Your task to perform on an android device: turn smart compose on in the gmail app Image 0: 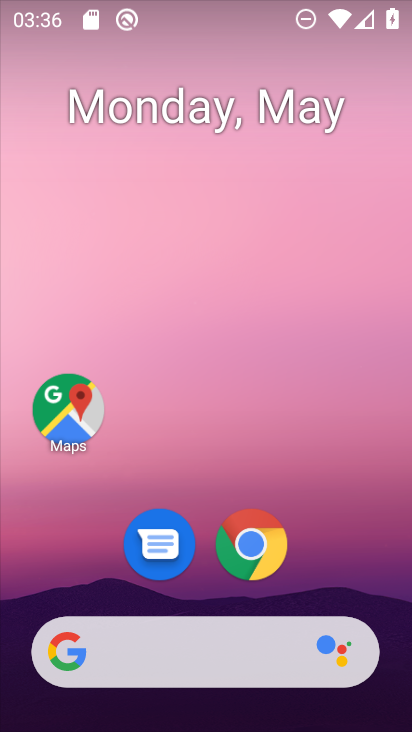
Step 0: drag from (380, 583) to (383, 259)
Your task to perform on an android device: turn smart compose on in the gmail app Image 1: 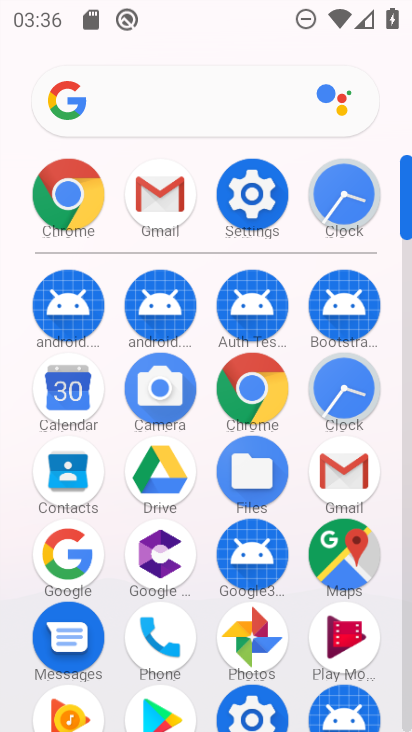
Step 1: click (365, 472)
Your task to perform on an android device: turn smart compose on in the gmail app Image 2: 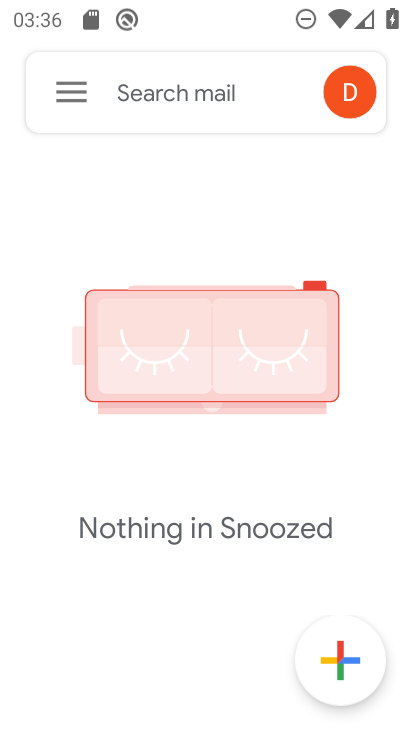
Step 2: click (81, 107)
Your task to perform on an android device: turn smart compose on in the gmail app Image 3: 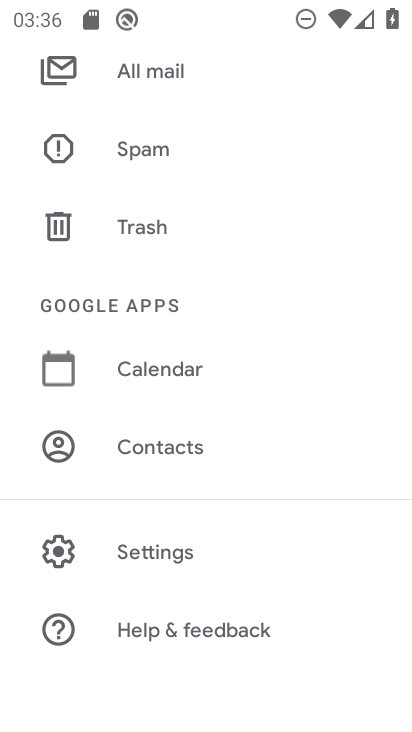
Step 3: drag from (279, 162) to (280, 247)
Your task to perform on an android device: turn smart compose on in the gmail app Image 4: 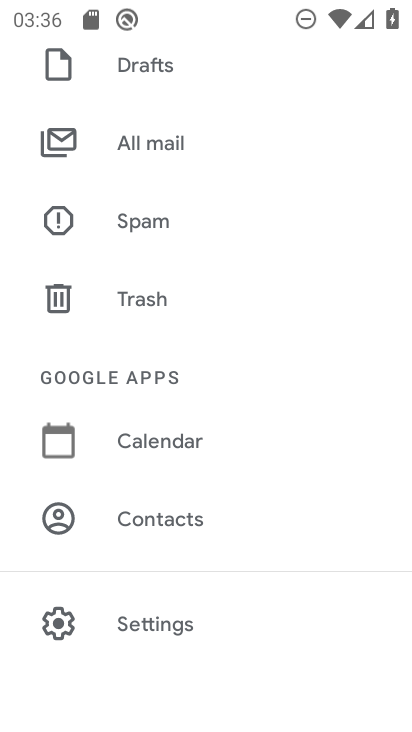
Step 4: drag from (302, 151) to (308, 250)
Your task to perform on an android device: turn smart compose on in the gmail app Image 5: 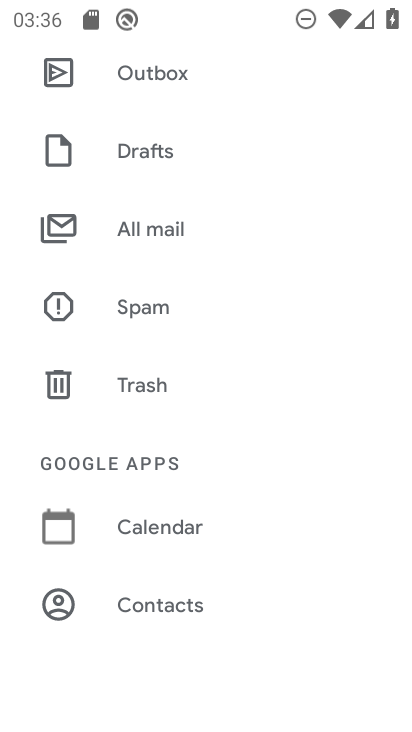
Step 5: drag from (314, 114) to (308, 242)
Your task to perform on an android device: turn smart compose on in the gmail app Image 6: 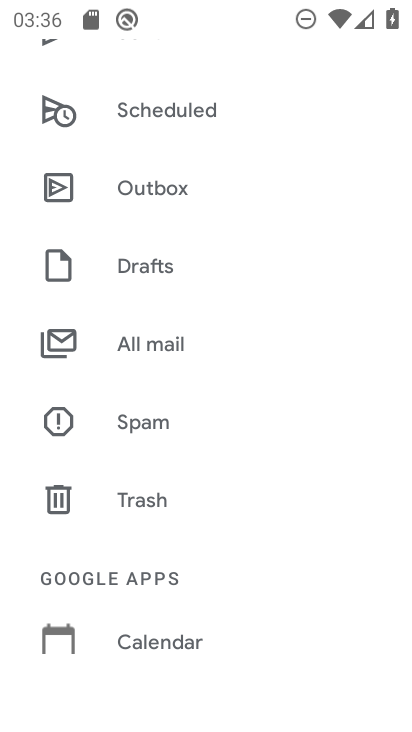
Step 6: drag from (313, 110) to (320, 216)
Your task to perform on an android device: turn smart compose on in the gmail app Image 7: 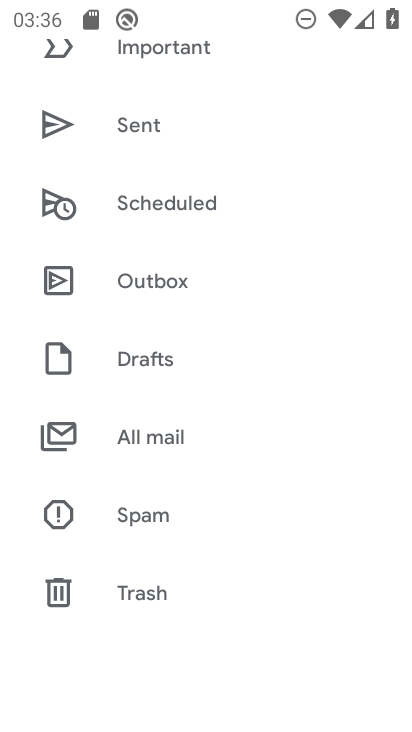
Step 7: drag from (323, 106) to (323, 231)
Your task to perform on an android device: turn smart compose on in the gmail app Image 8: 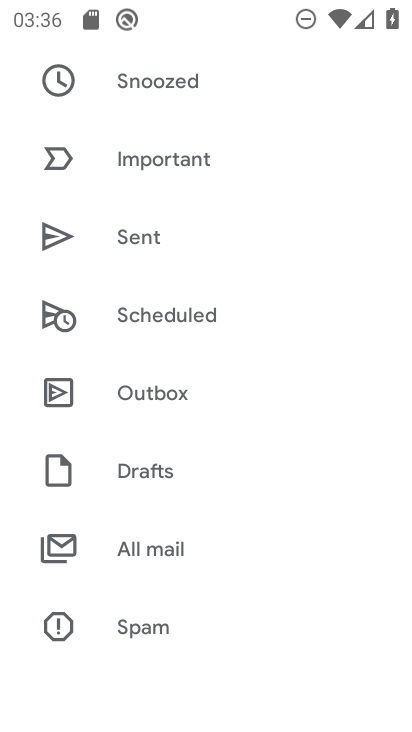
Step 8: drag from (323, 91) to (327, 217)
Your task to perform on an android device: turn smart compose on in the gmail app Image 9: 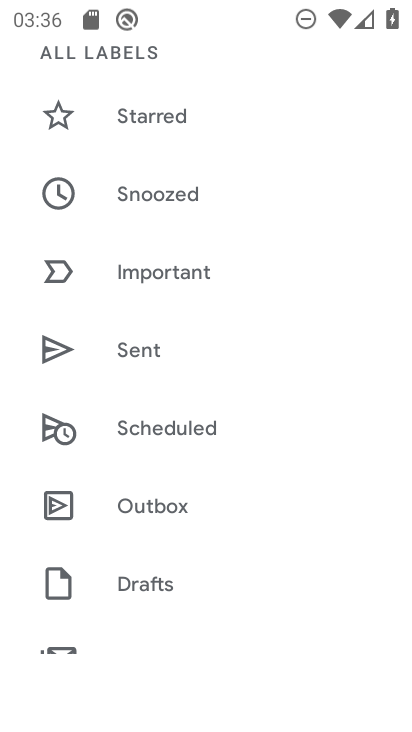
Step 9: drag from (320, 96) to (334, 260)
Your task to perform on an android device: turn smart compose on in the gmail app Image 10: 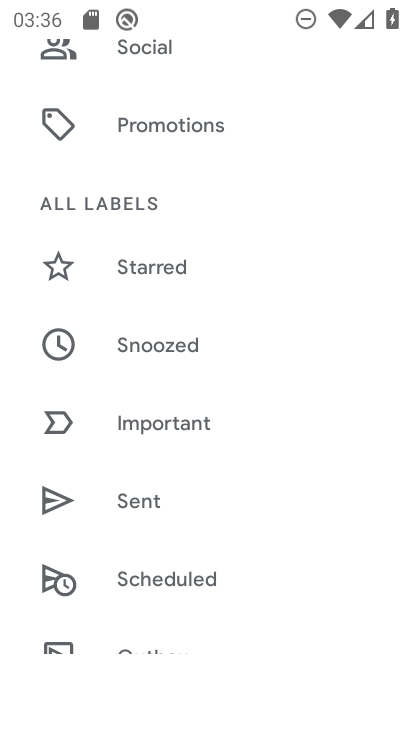
Step 10: drag from (320, 87) to (335, 328)
Your task to perform on an android device: turn smart compose on in the gmail app Image 11: 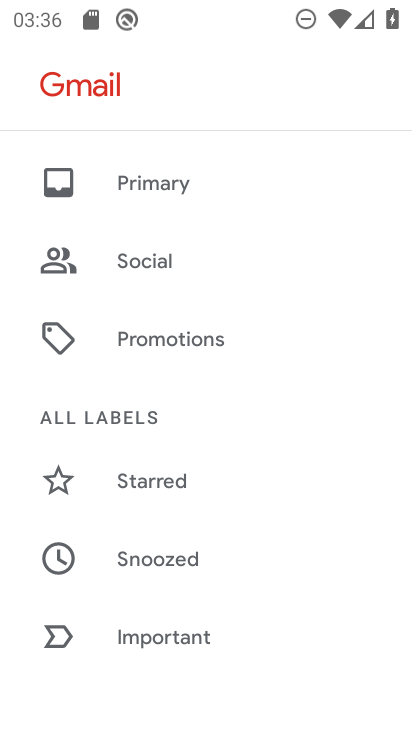
Step 11: drag from (328, 359) to (328, 251)
Your task to perform on an android device: turn smart compose on in the gmail app Image 12: 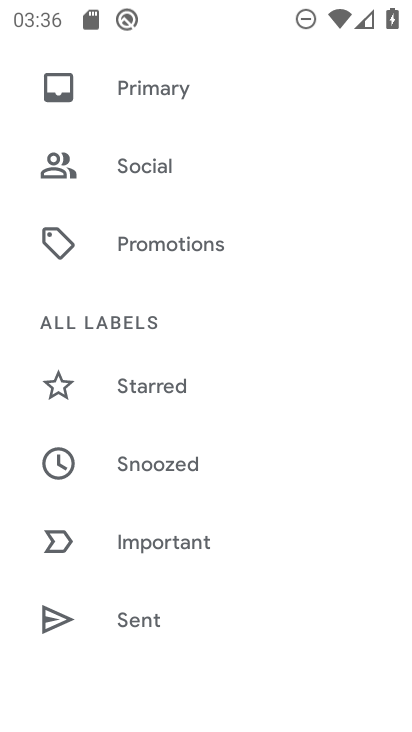
Step 12: drag from (323, 378) to (311, 185)
Your task to perform on an android device: turn smart compose on in the gmail app Image 13: 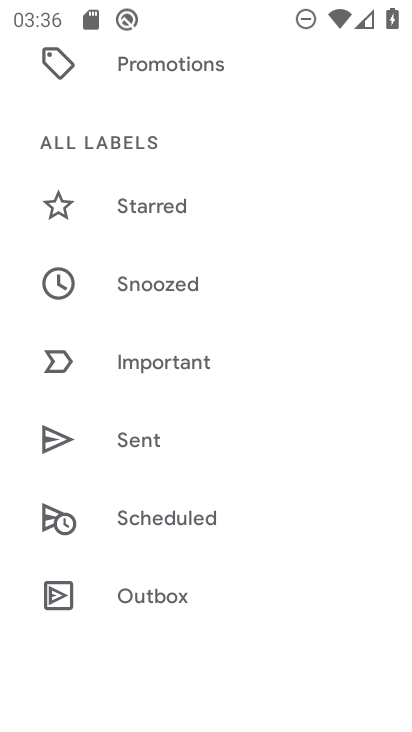
Step 13: drag from (325, 424) to (320, 286)
Your task to perform on an android device: turn smart compose on in the gmail app Image 14: 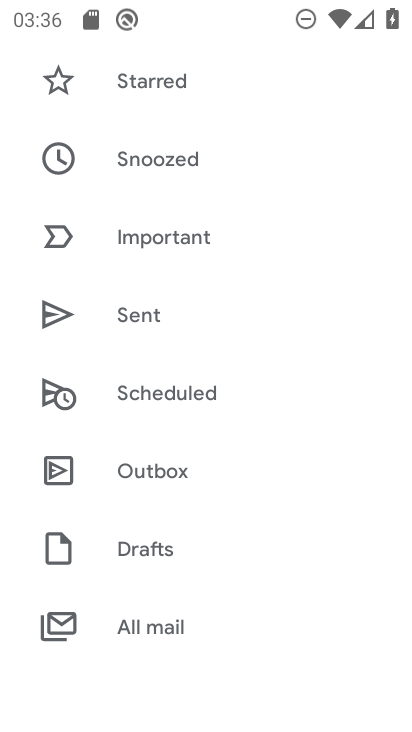
Step 14: drag from (315, 472) to (331, 331)
Your task to perform on an android device: turn smart compose on in the gmail app Image 15: 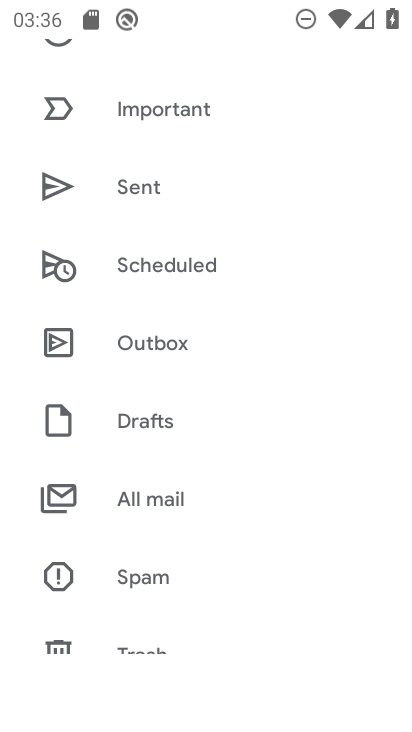
Step 15: drag from (338, 505) to (349, 367)
Your task to perform on an android device: turn smart compose on in the gmail app Image 16: 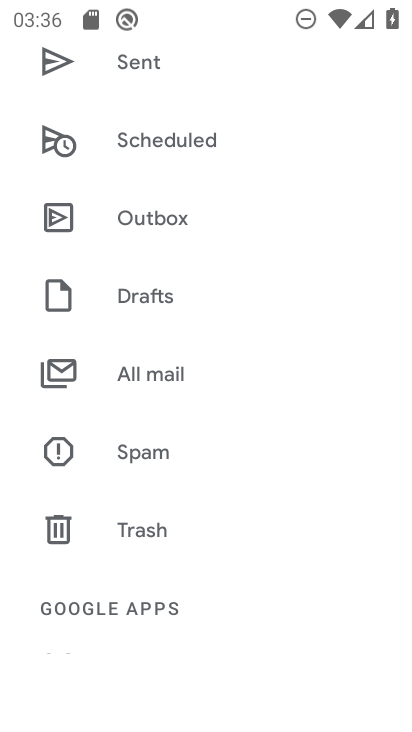
Step 16: drag from (334, 539) to (335, 368)
Your task to perform on an android device: turn smart compose on in the gmail app Image 17: 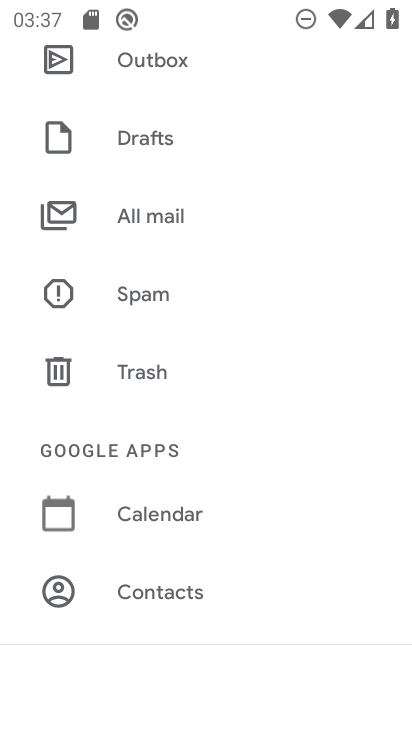
Step 17: drag from (322, 542) to (339, 340)
Your task to perform on an android device: turn smart compose on in the gmail app Image 18: 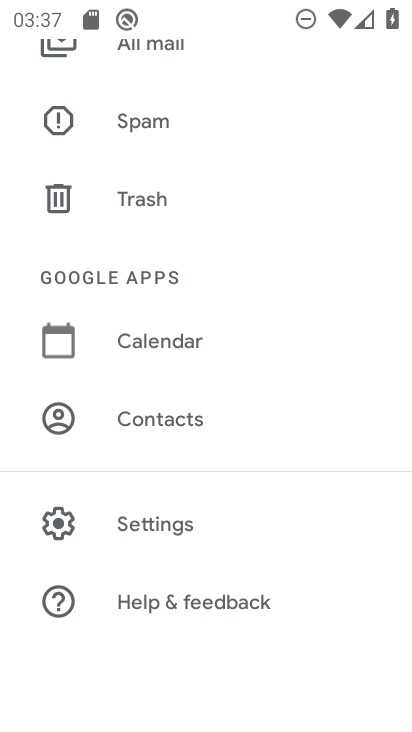
Step 18: click (184, 523)
Your task to perform on an android device: turn smart compose on in the gmail app Image 19: 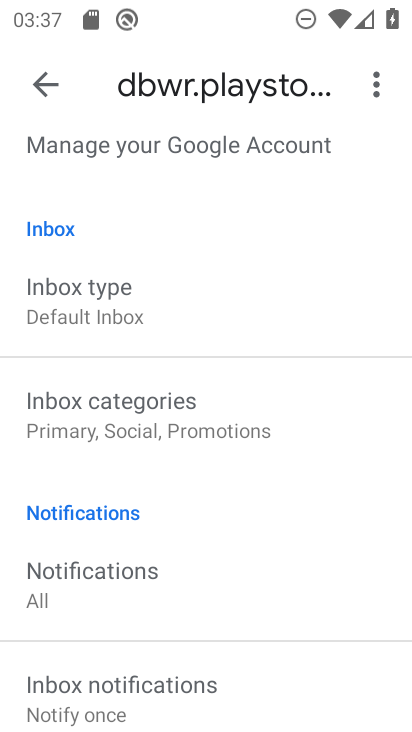
Step 19: task complete